Your task to perform on an android device: clear history in the chrome app Image 0: 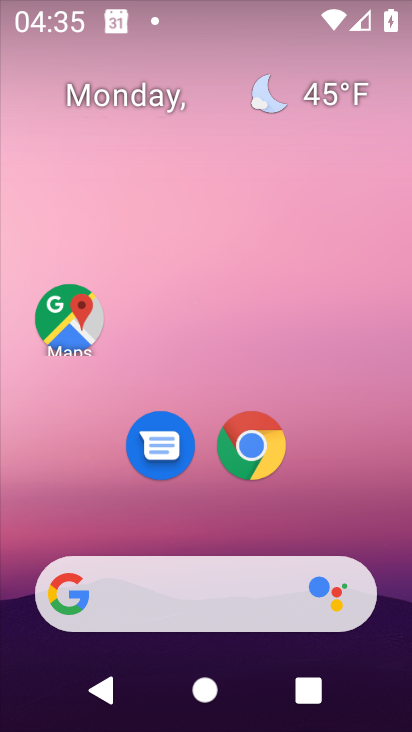
Step 0: click (259, 458)
Your task to perform on an android device: clear history in the chrome app Image 1: 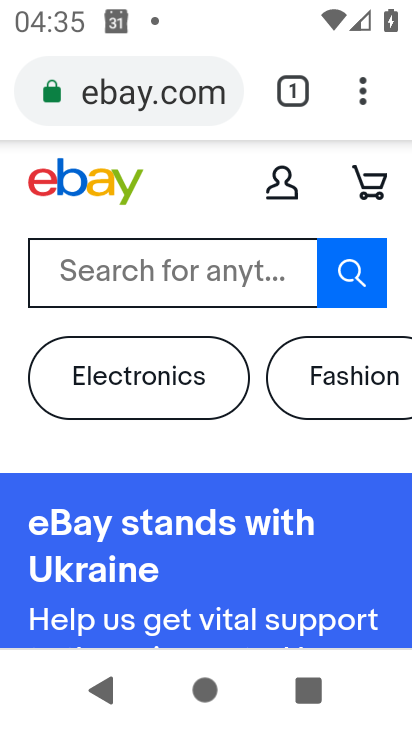
Step 1: click (357, 100)
Your task to perform on an android device: clear history in the chrome app Image 2: 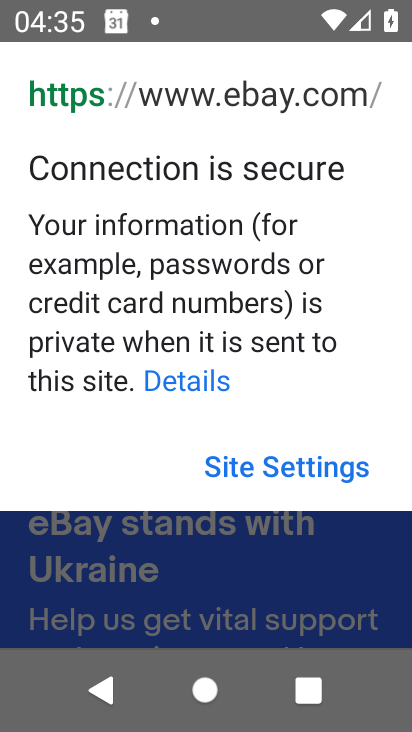
Step 2: click (227, 566)
Your task to perform on an android device: clear history in the chrome app Image 3: 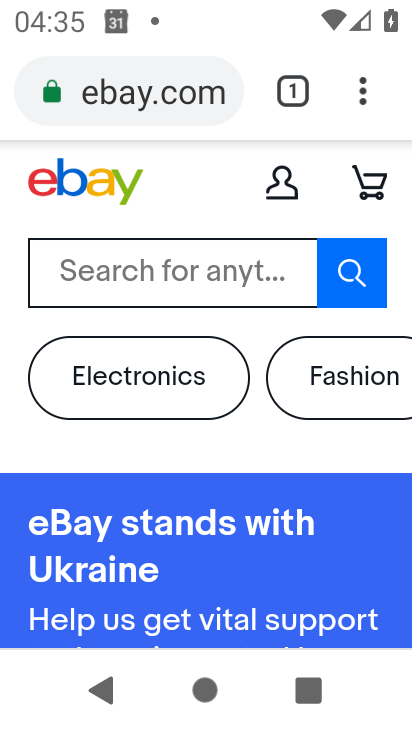
Step 3: click (355, 104)
Your task to perform on an android device: clear history in the chrome app Image 4: 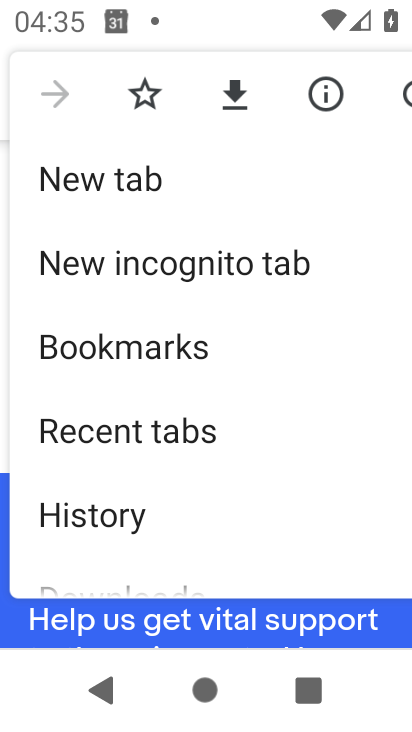
Step 4: click (248, 521)
Your task to perform on an android device: clear history in the chrome app Image 5: 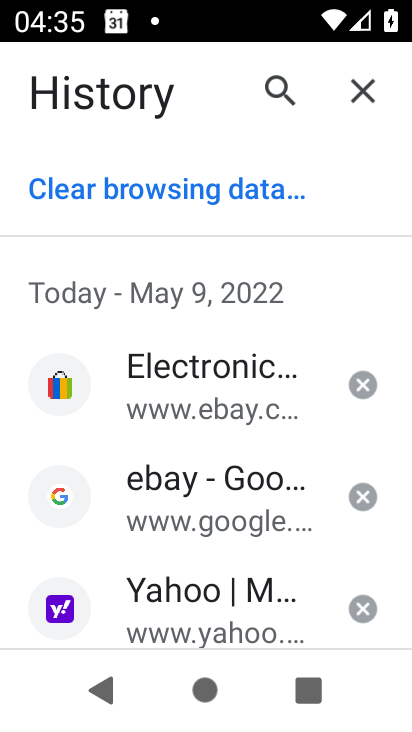
Step 5: click (149, 172)
Your task to perform on an android device: clear history in the chrome app Image 6: 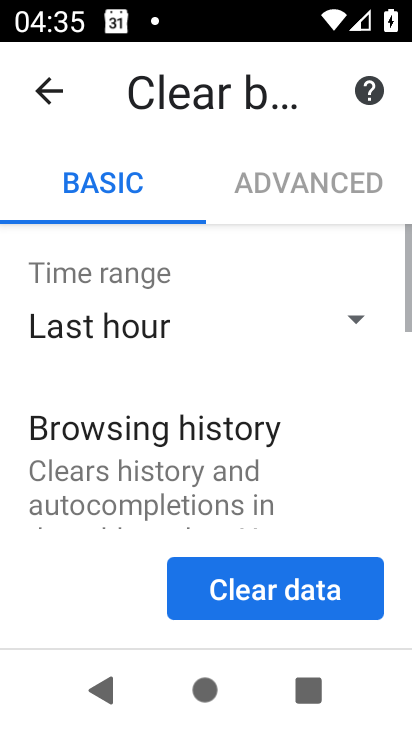
Step 6: click (299, 594)
Your task to perform on an android device: clear history in the chrome app Image 7: 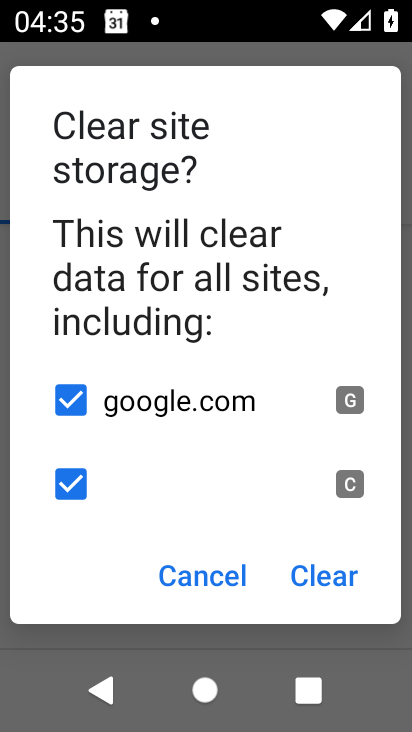
Step 7: click (299, 594)
Your task to perform on an android device: clear history in the chrome app Image 8: 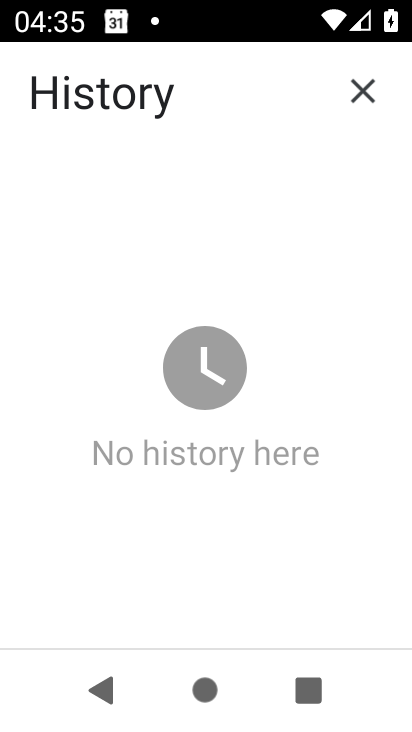
Step 8: task complete